Your task to perform on an android device: Search for seafood restaurants on Google Maps Image 0: 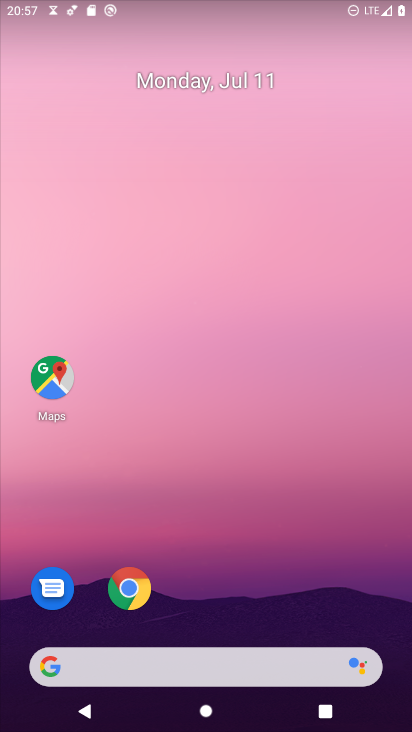
Step 0: press home button
Your task to perform on an android device: Search for seafood restaurants on Google Maps Image 1: 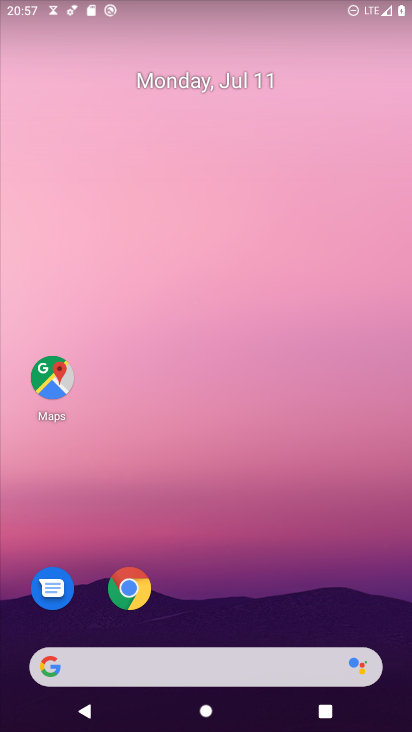
Step 1: drag from (251, 611) to (178, 3)
Your task to perform on an android device: Search for seafood restaurants on Google Maps Image 2: 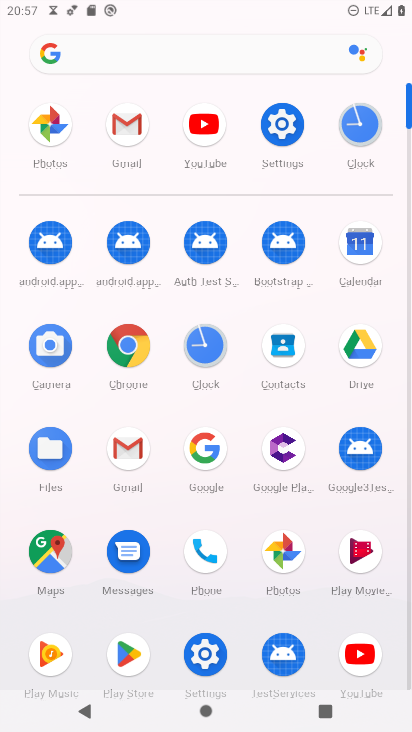
Step 2: click (51, 557)
Your task to perform on an android device: Search for seafood restaurants on Google Maps Image 3: 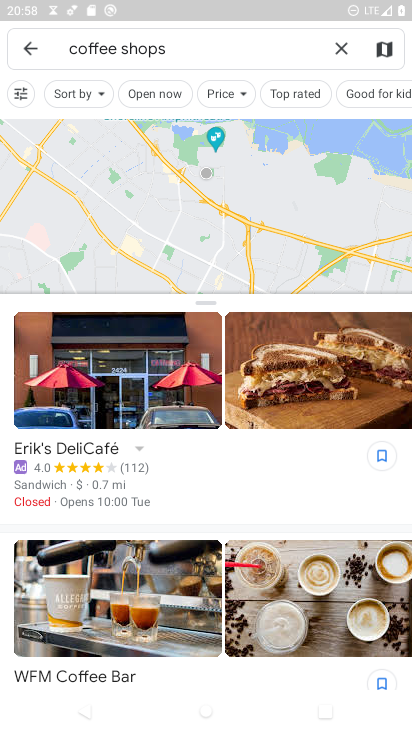
Step 3: press back button
Your task to perform on an android device: Search for seafood restaurants on Google Maps Image 4: 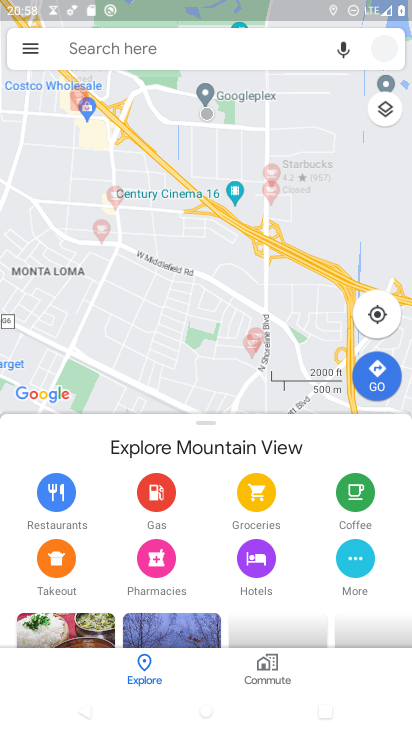
Step 4: click (145, 50)
Your task to perform on an android device: Search for seafood restaurants on Google Maps Image 5: 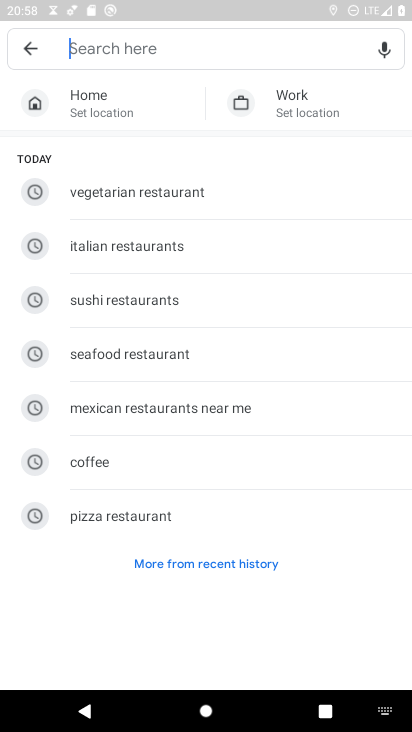
Step 5: click (133, 350)
Your task to perform on an android device: Search for seafood restaurants on Google Maps Image 6: 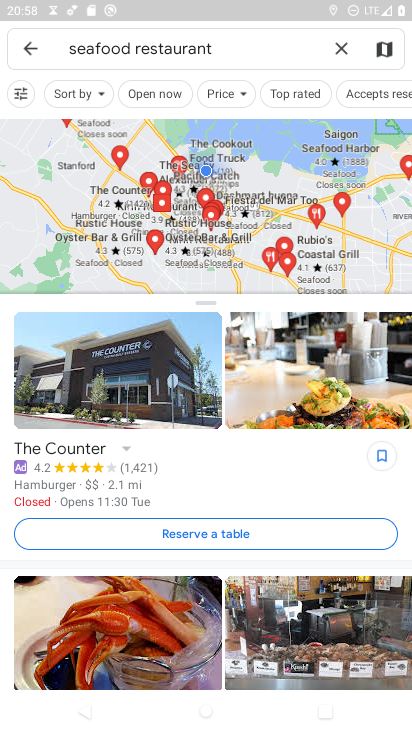
Step 6: task complete